Your task to perform on an android device: change text size in settings app Image 0: 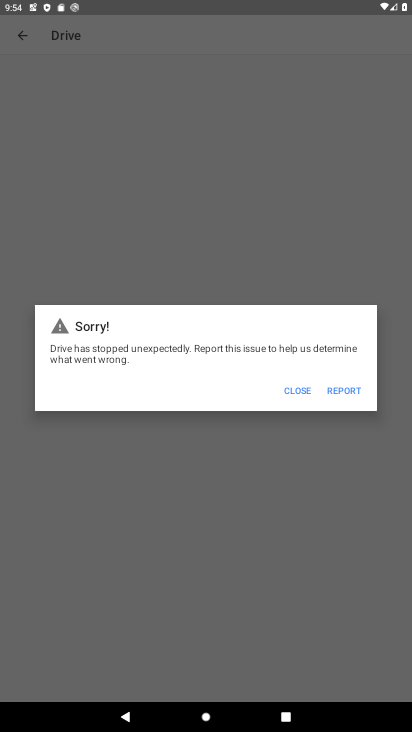
Step 0: press home button
Your task to perform on an android device: change text size in settings app Image 1: 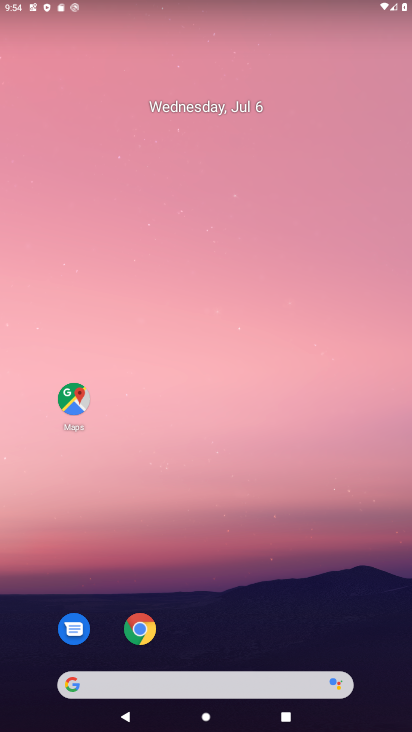
Step 1: drag from (206, 605) to (279, 13)
Your task to perform on an android device: change text size in settings app Image 2: 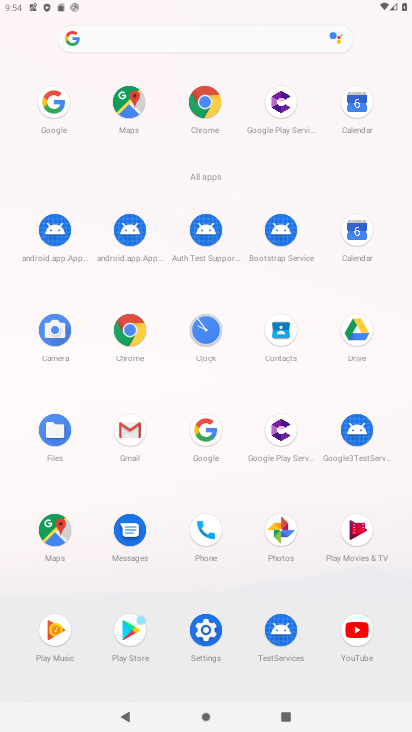
Step 2: click (196, 627)
Your task to perform on an android device: change text size in settings app Image 3: 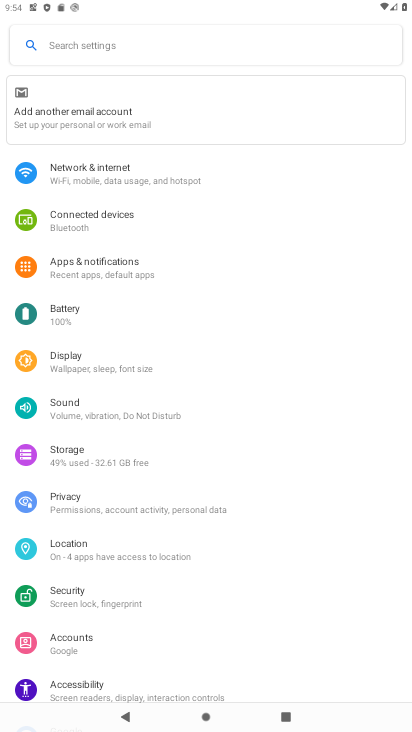
Step 3: click (123, 365)
Your task to perform on an android device: change text size in settings app Image 4: 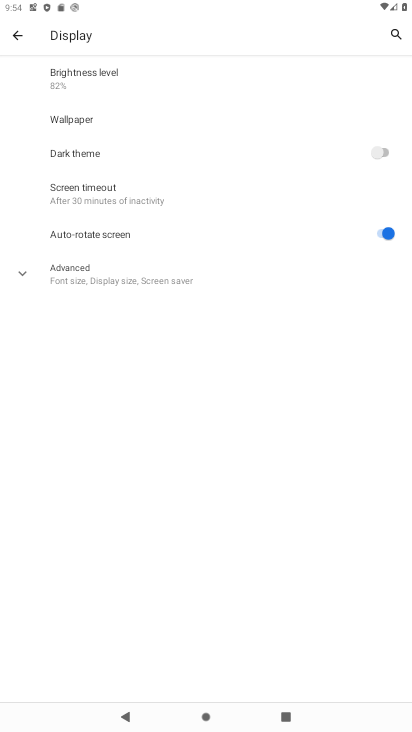
Step 4: click (85, 272)
Your task to perform on an android device: change text size in settings app Image 5: 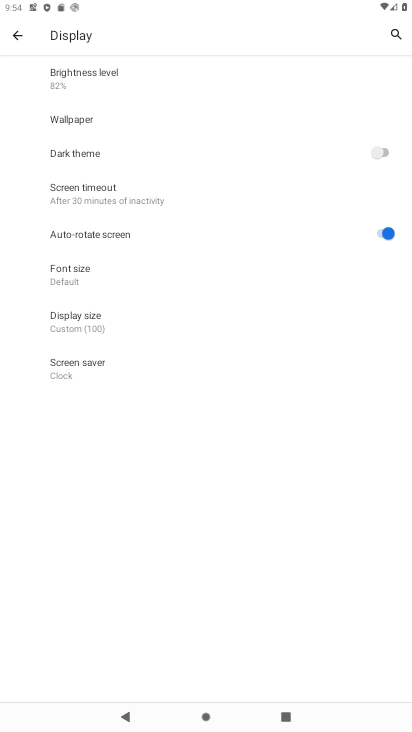
Step 5: click (85, 281)
Your task to perform on an android device: change text size in settings app Image 6: 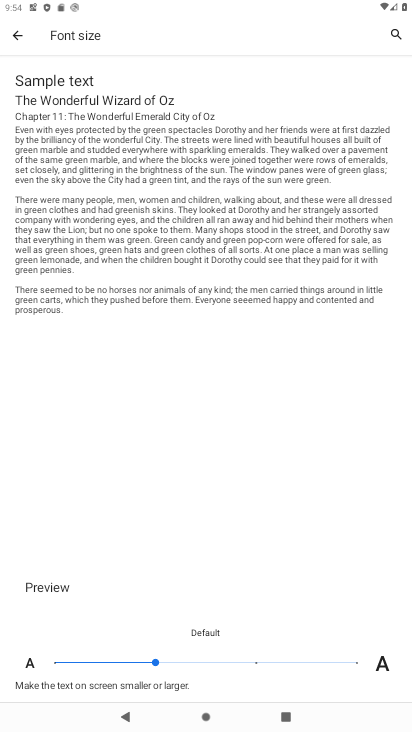
Step 6: task complete